Your task to perform on an android device: open app "Spotify" (install if not already installed) and go to login screen Image 0: 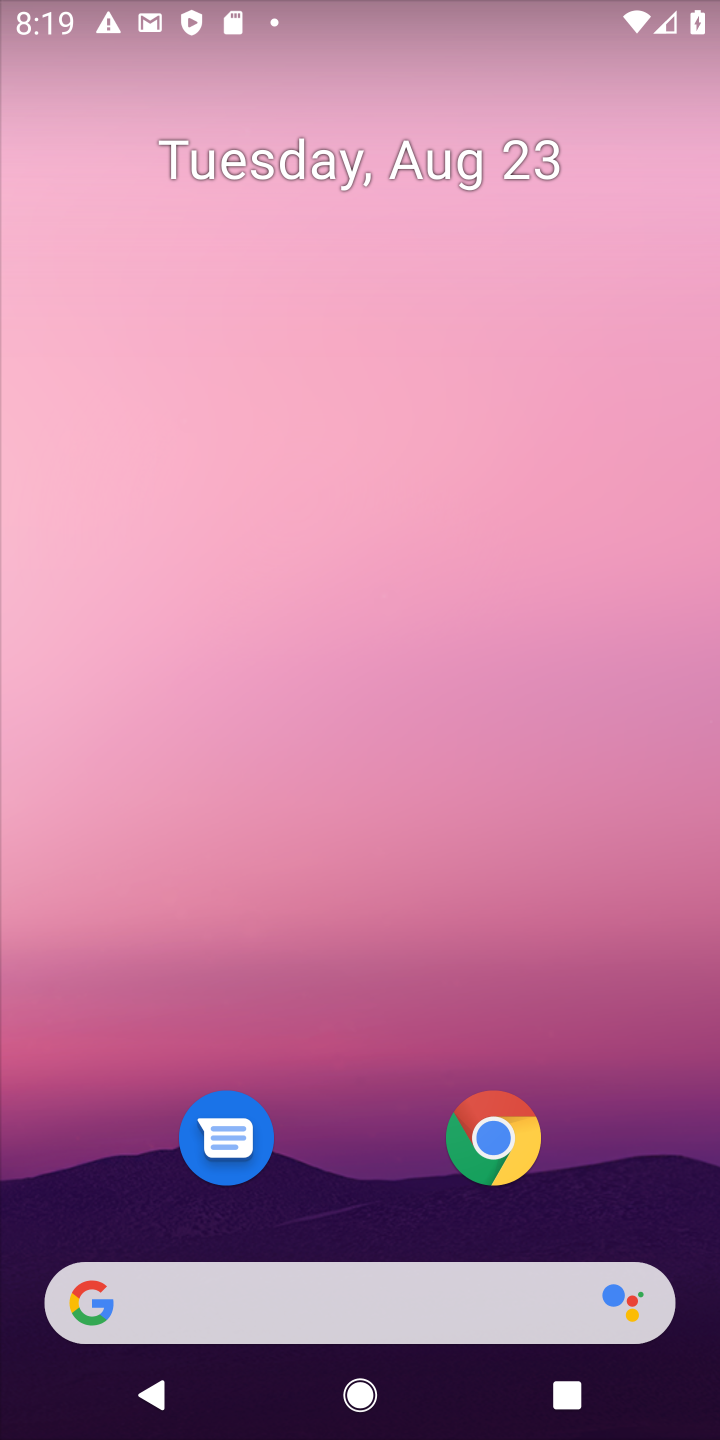
Step 0: drag from (612, 1204) to (585, 102)
Your task to perform on an android device: open app "Spotify" (install if not already installed) and go to login screen Image 1: 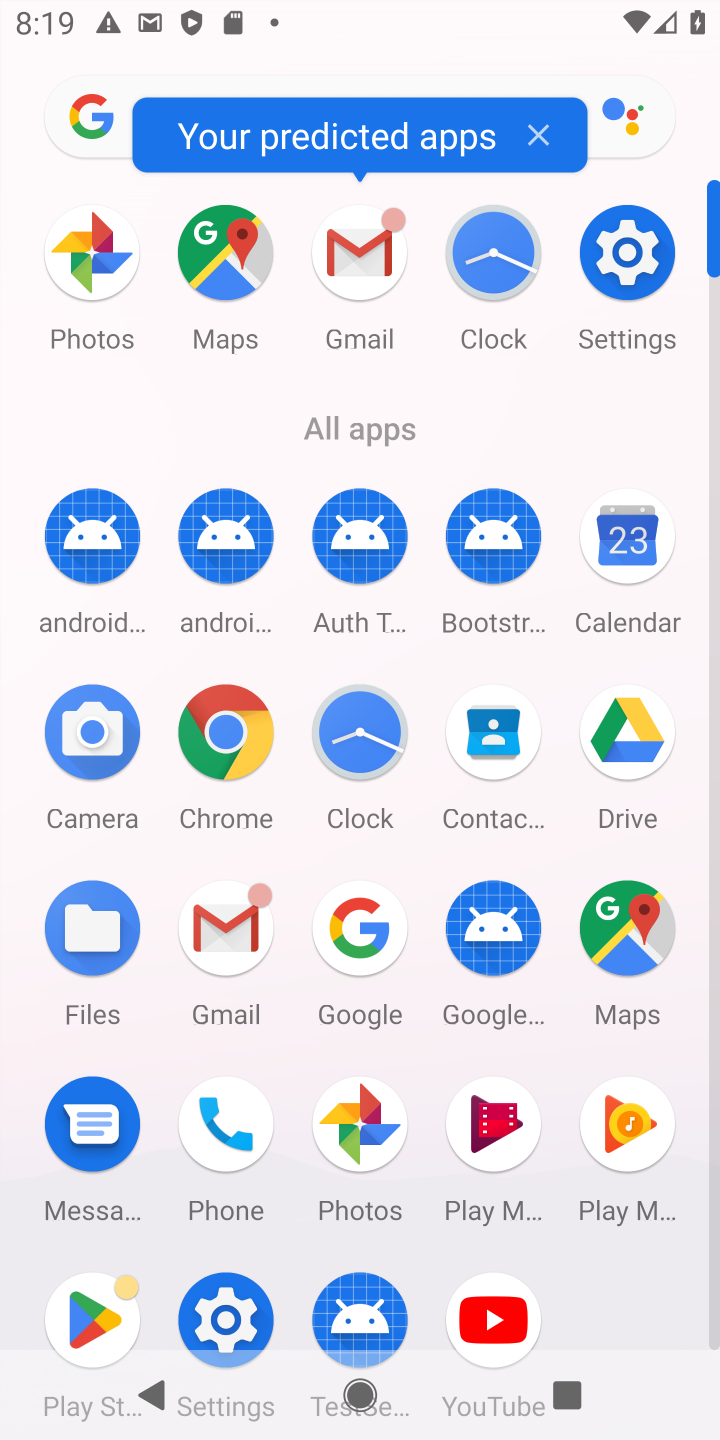
Step 1: drag from (665, 1278) to (689, 606)
Your task to perform on an android device: open app "Spotify" (install if not already installed) and go to login screen Image 2: 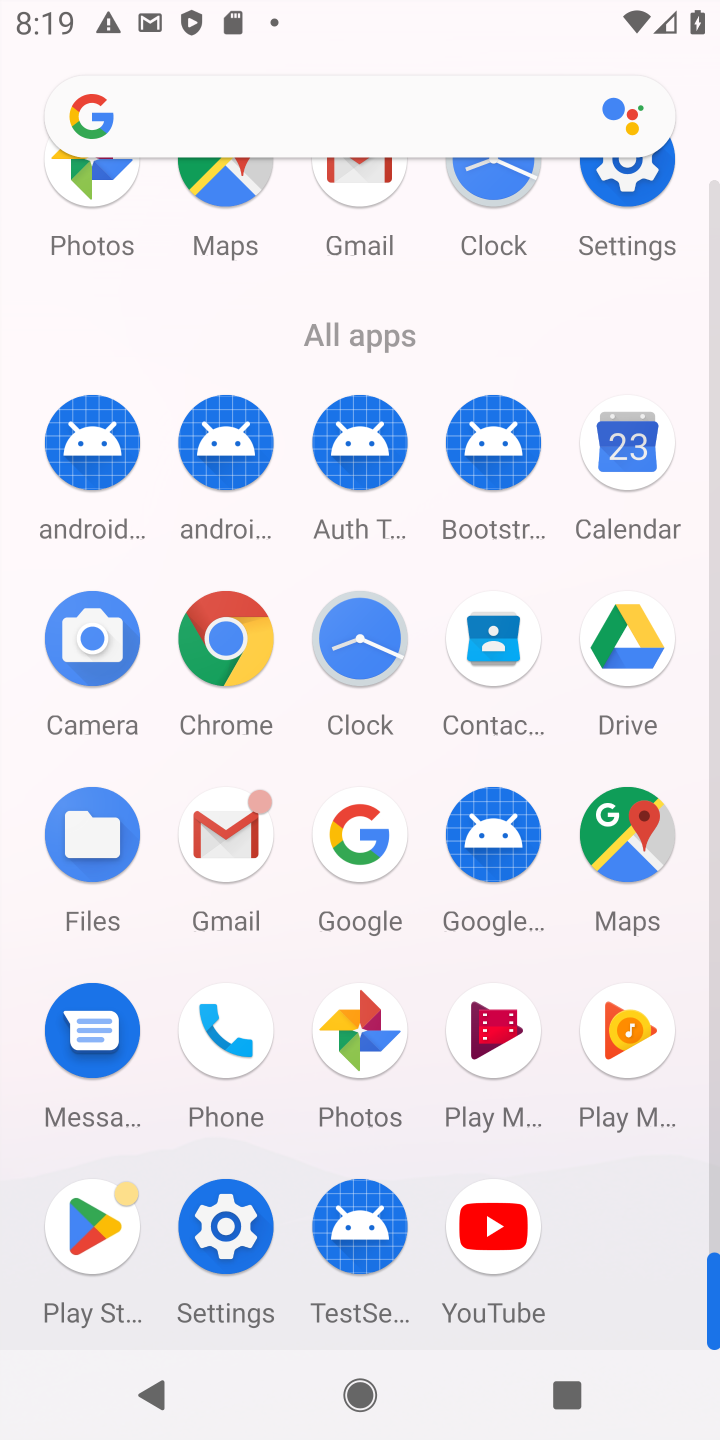
Step 2: click (83, 1235)
Your task to perform on an android device: open app "Spotify" (install if not already installed) and go to login screen Image 3: 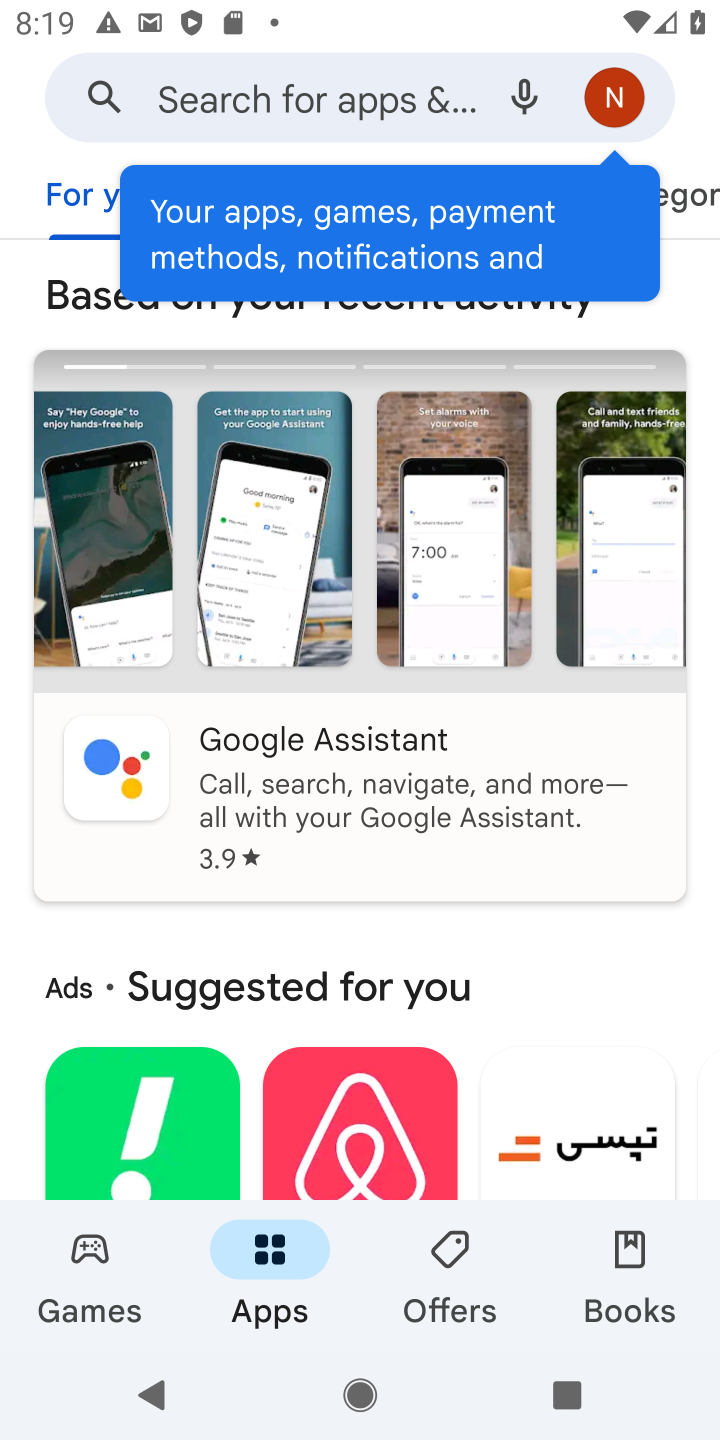
Step 3: click (230, 96)
Your task to perform on an android device: open app "Spotify" (install if not already installed) and go to login screen Image 4: 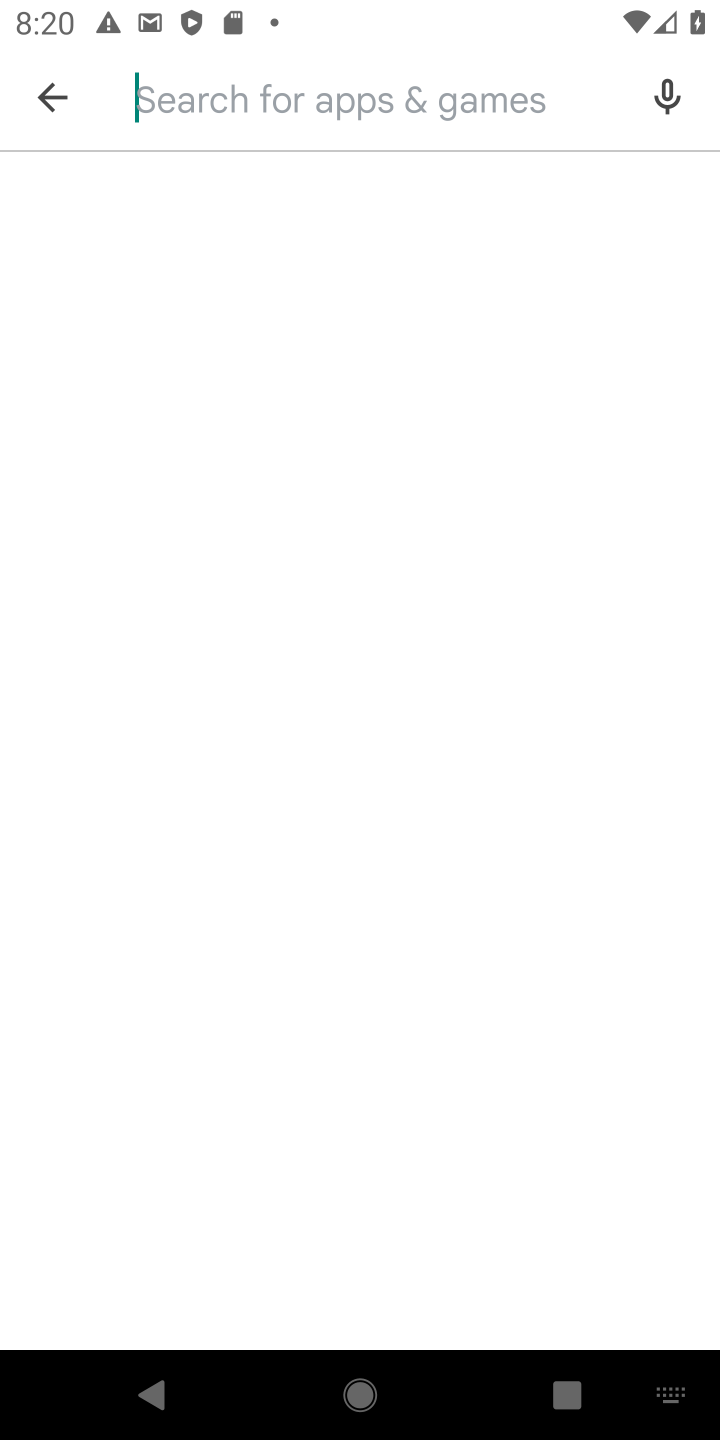
Step 4: press enter
Your task to perform on an android device: open app "Spotify" (install if not already installed) and go to login screen Image 5: 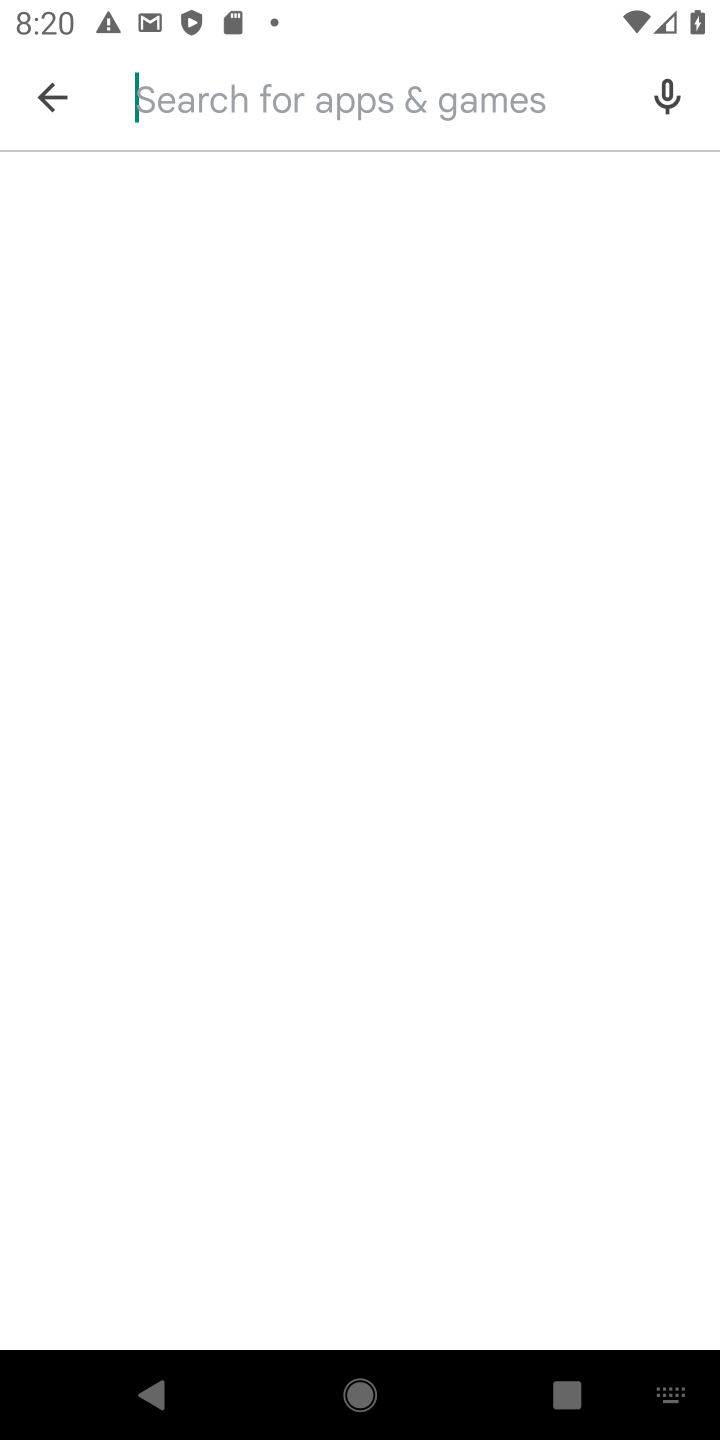
Step 5: type "Spotify"
Your task to perform on an android device: open app "Spotify" (install if not already installed) and go to login screen Image 6: 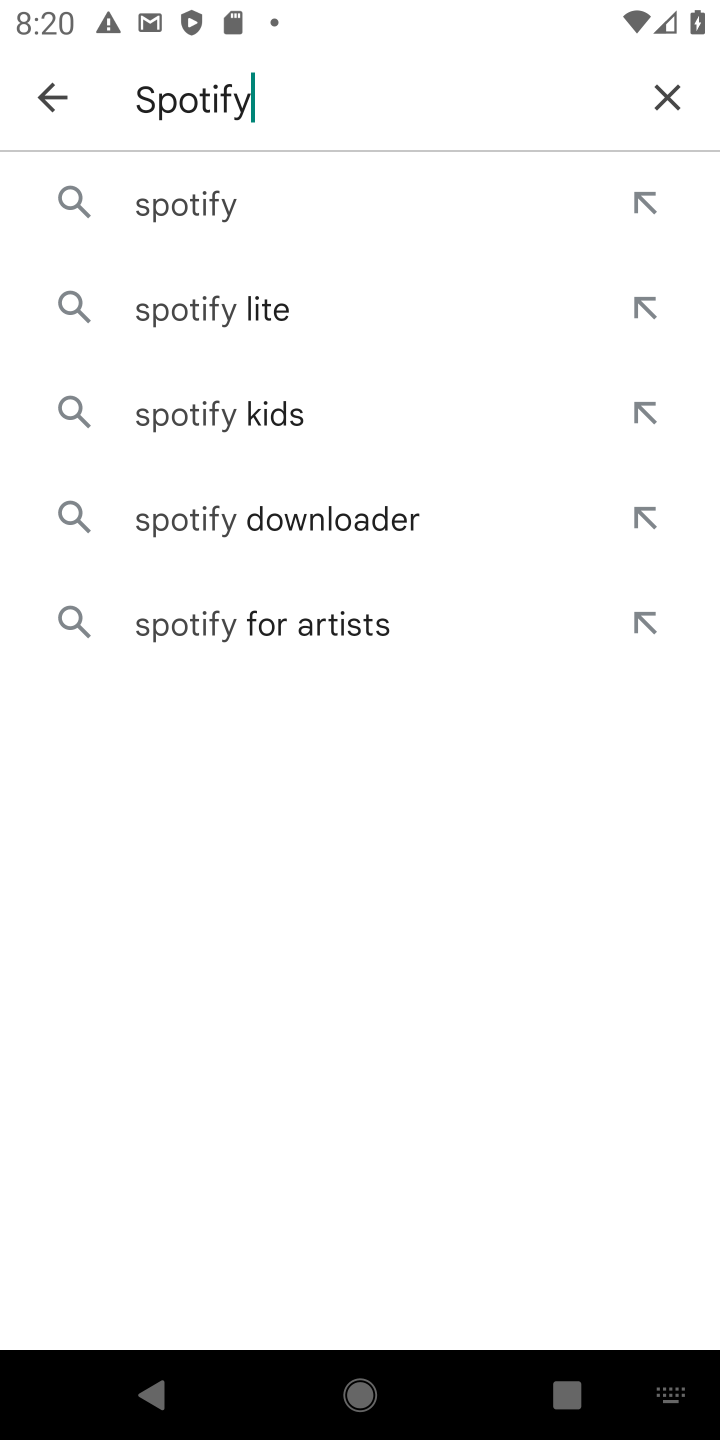
Step 6: click (289, 201)
Your task to perform on an android device: open app "Spotify" (install if not already installed) and go to login screen Image 7: 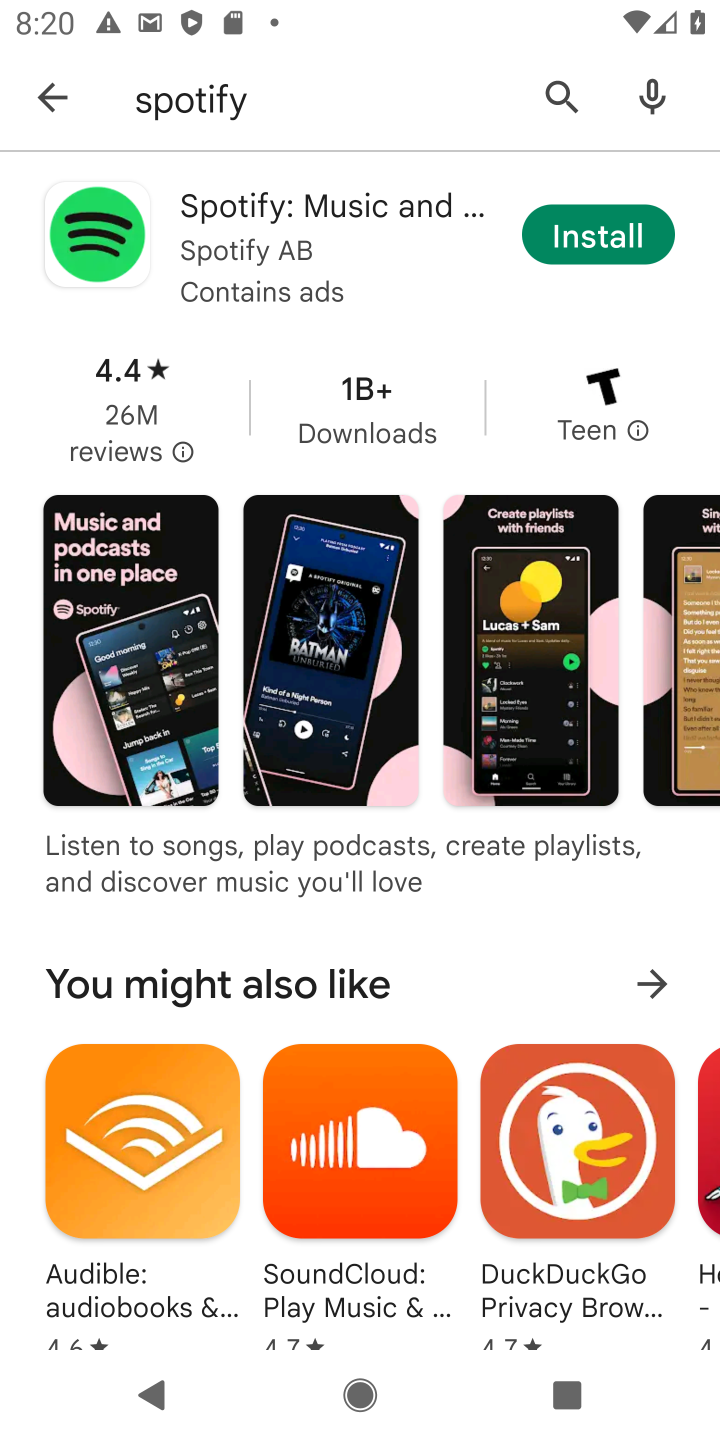
Step 7: click (578, 249)
Your task to perform on an android device: open app "Spotify" (install if not already installed) and go to login screen Image 8: 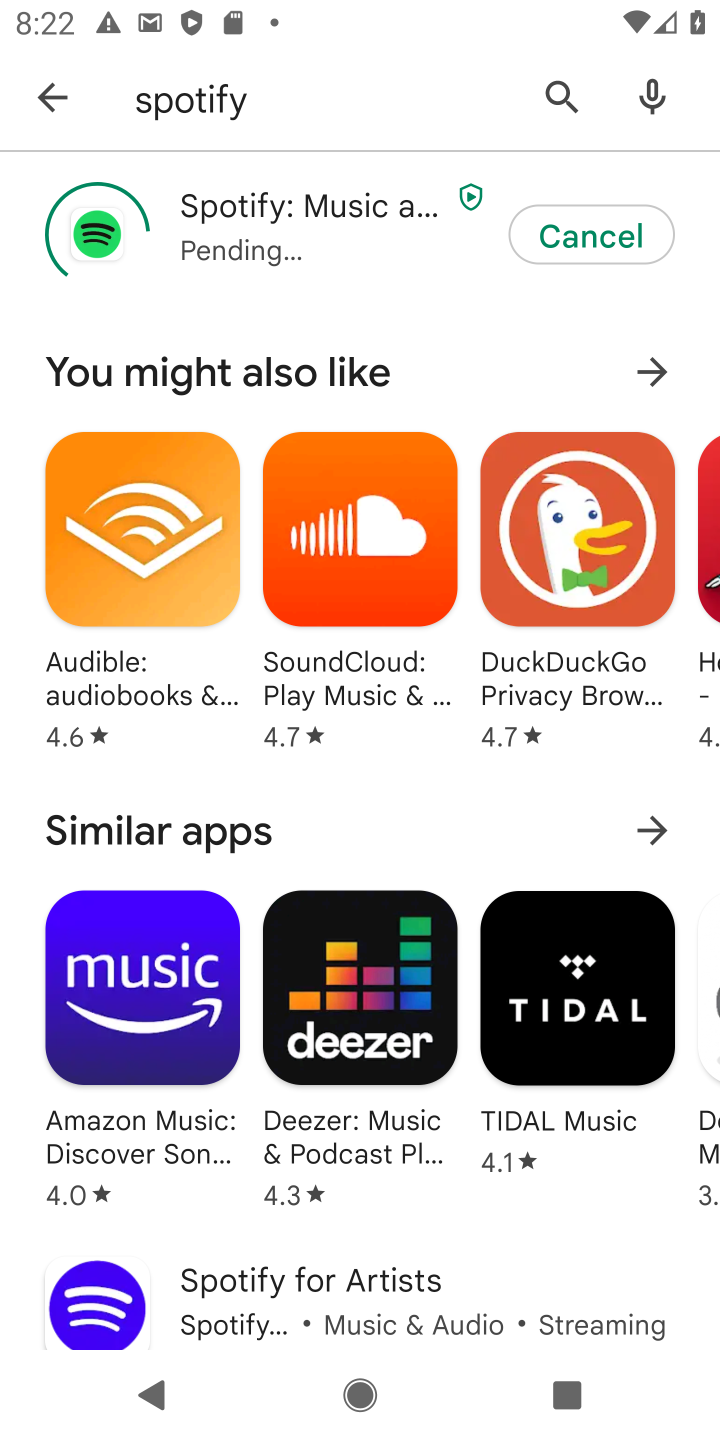
Step 8: task complete